Your task to perform on an android device: Search for the best books on Goodreads Image 0: 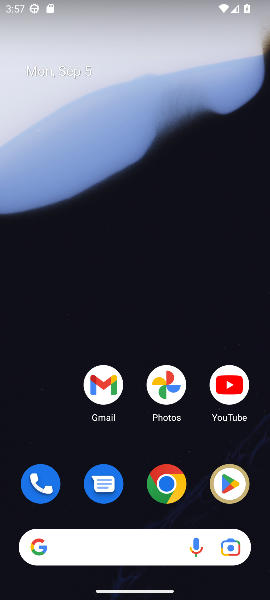
Step 0: click (165, 480)
Your task to perform on an android device: Search for the best books on Goodreads Image 1: 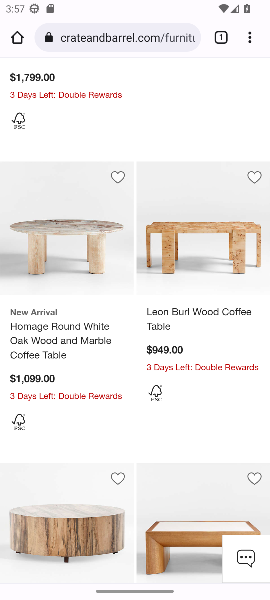
Step 1: click (121, 34)
Your task to perform on an android device: Search for the best books on Goodreads Image 2: 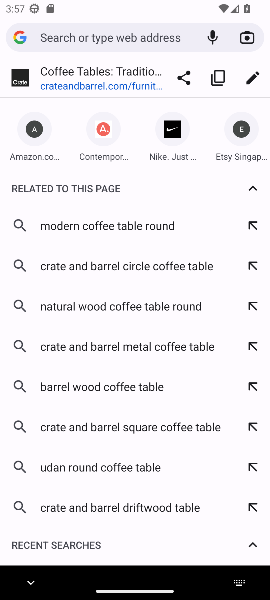
Step 2: type "Goodreads"
Your task to perform on an android device: Search for the best books on Goodreads Image 3: 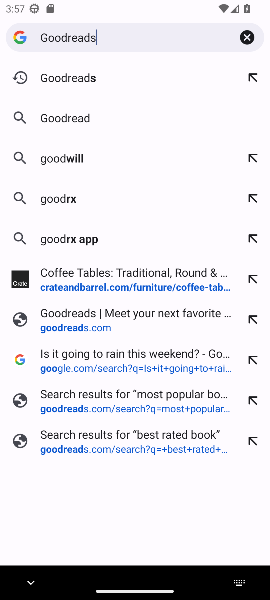
Step 3: press enter
Your task to perform on an android device: Search for the best books on Goodreads Image 4: 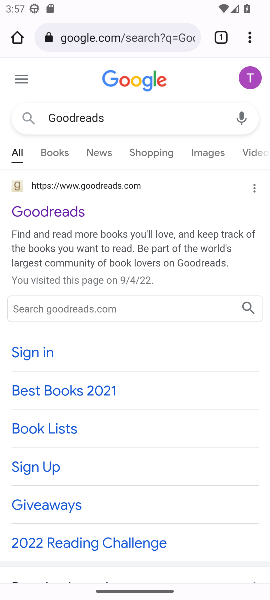
Step 4: click (66, 209)
Your task to perform on an android device: Search for the best books on Goodreads Image 5: 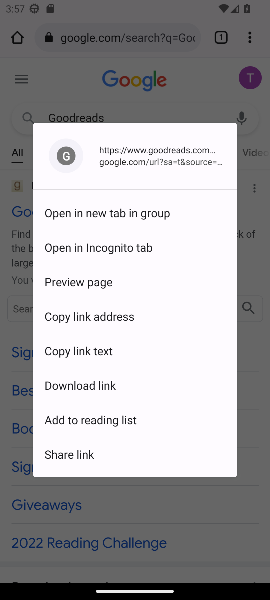
Step 5: click (263, 352)
Your task to perform on an android device: Search for the best books on Goodreads Image 6: 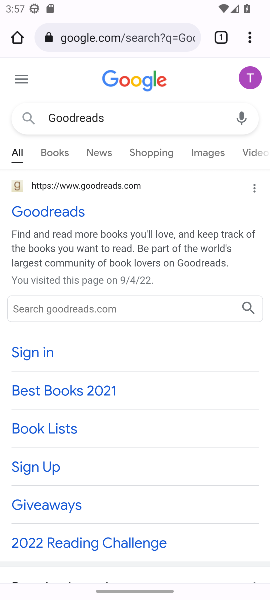
Step 6: click (40, 212)
Your task to perform on an android device: Search for the best books on Goodreads Image 7: 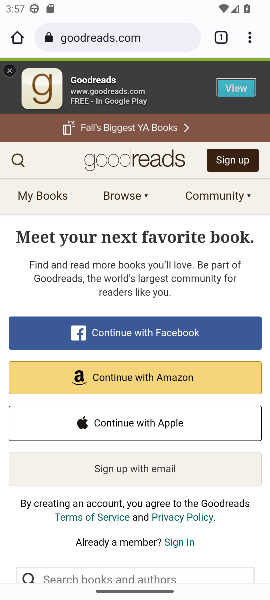
Step 7: click (17, 159)
Your task to perform on an android device: Search for the best books on Goodreads Image 8: 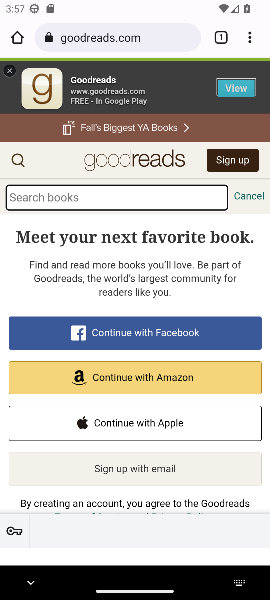
Step 8: type "best books"
Your task to perform on an android device: Search for the best books on Goodreads Image 9: 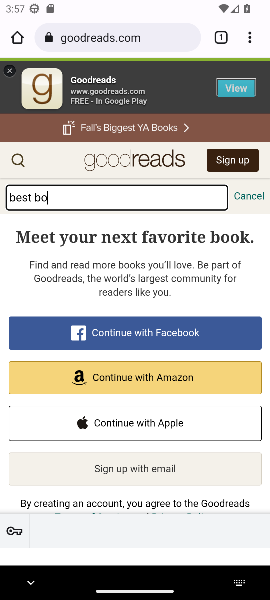
Step 9: press enter
Your task to perform on an android device: Search for the best books on Goodreads Image 10: 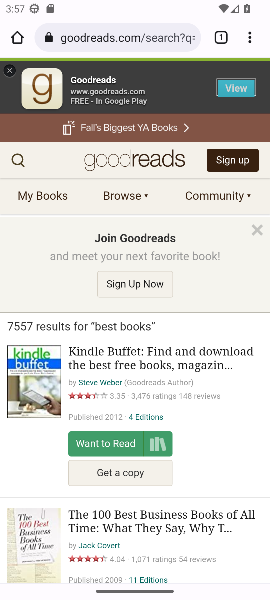
Step 10: task complete